Your task to perform on an android device: delete a single message in the gmail app Image 0: 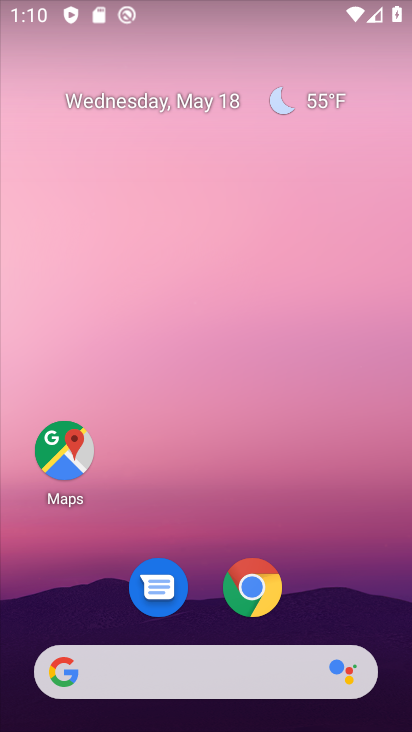
Step 0: click (270, 585)
Your task to perform on an android device: delete a single message in the gmail app Image 1: 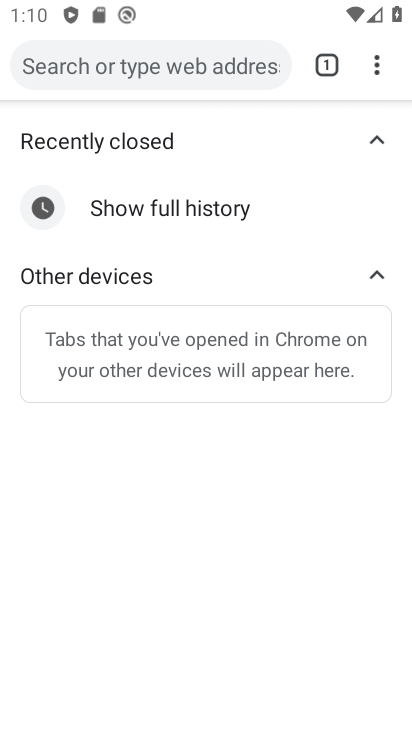
Step 1: press home button
Your task to perform on an android device: delete a single message in the gmail app Image 2: 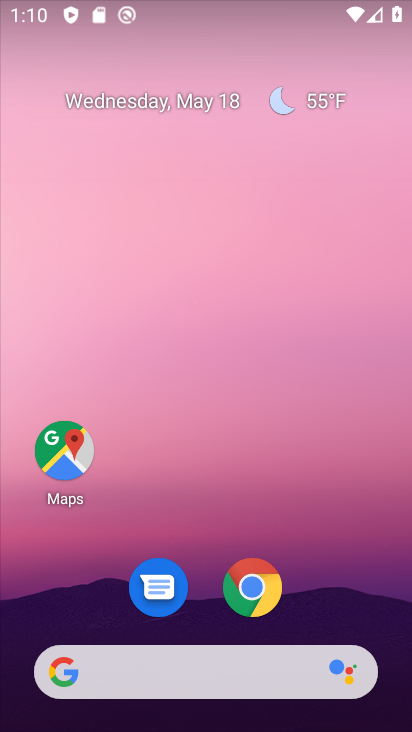
Step 2: drag from (211, 651) to (201, 163)
Your task to perform on an android device: delete a single message in the gmail app Image 3: 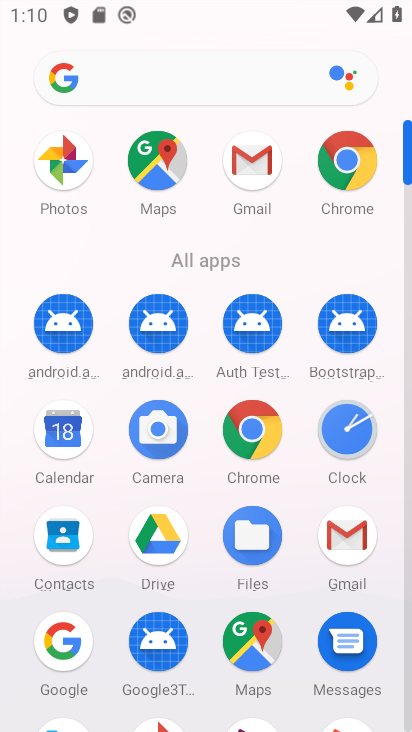
Step 3: click (249, 156)
Your task to perform on an android device: delete a single message in the gmail app Image 4: 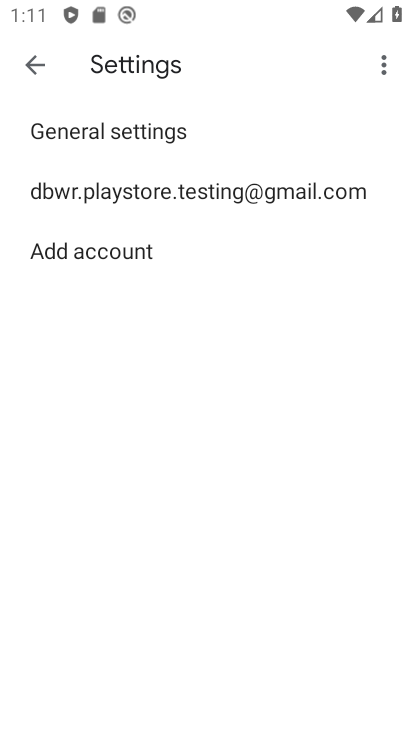
Step 4: click (33, 67)
Your task to perform on an android device: delete a single message in the gmail app Image 5: 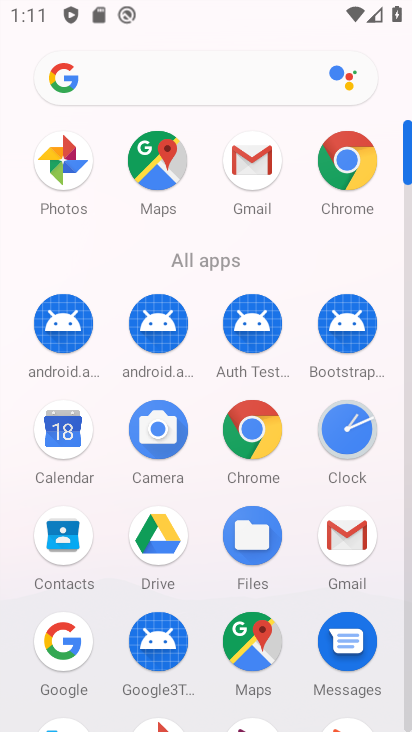
Step 5: click (238, 155)
Your task to perform on an android device: delete a single message in the gmail app Image 6: 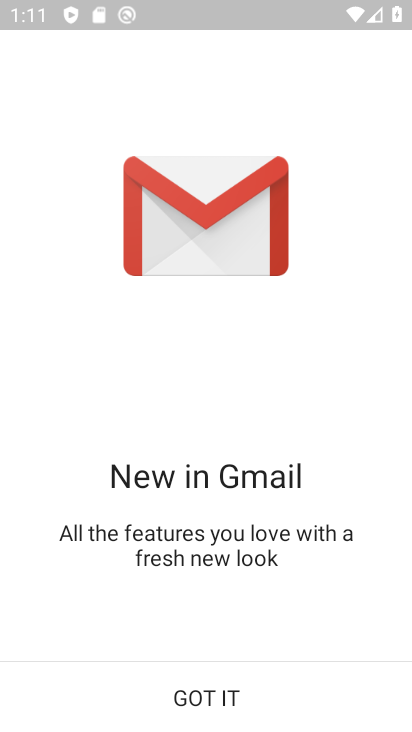
Step 6: click (204, 723)
Your task to perform on an android device: delete a single message in the gmail app Image 7: 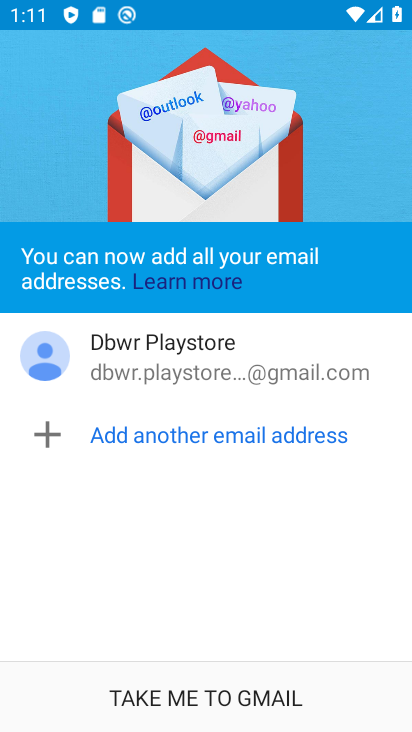
Step 7: click (195, 710)
Your task to perform on an android device: delete a single message in the gmail app Image 8: 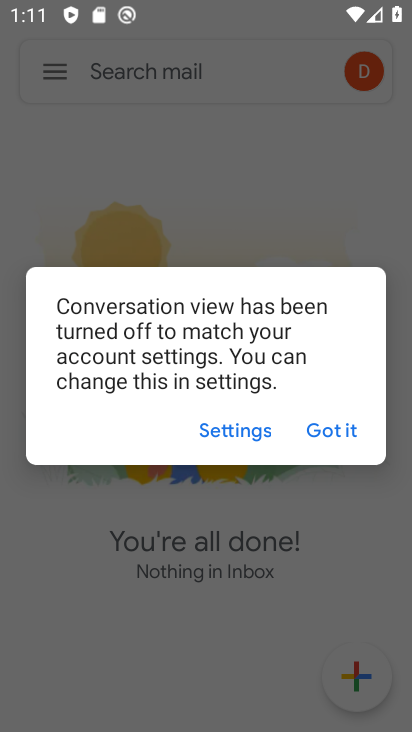
Step 8: click (327, 430)
Your task to perform on an android device: delete a single message in the gmail app Image 9: 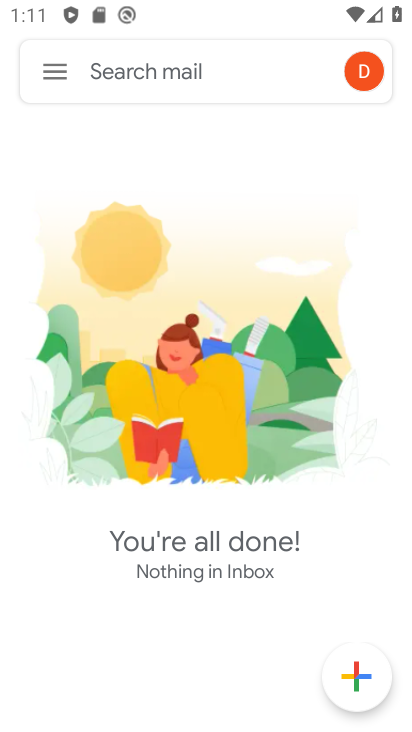
Step 9: task complete